Your task to perform on an android device: turn off notifications in google photos Image 0: 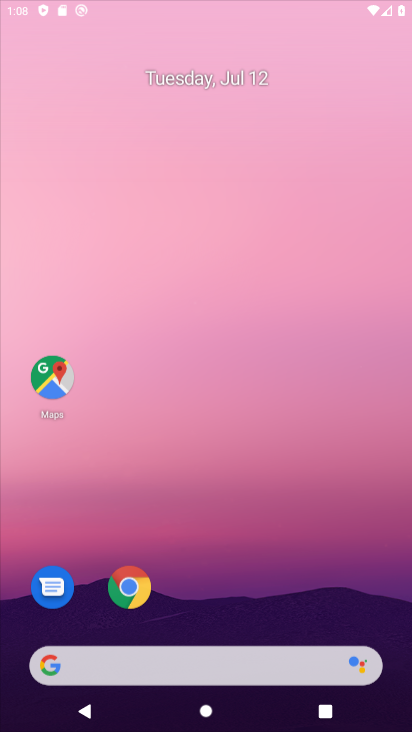
Step 0: click (365, 129)
Your task to perform on an android device: turn off notifications in google photos Image 1: 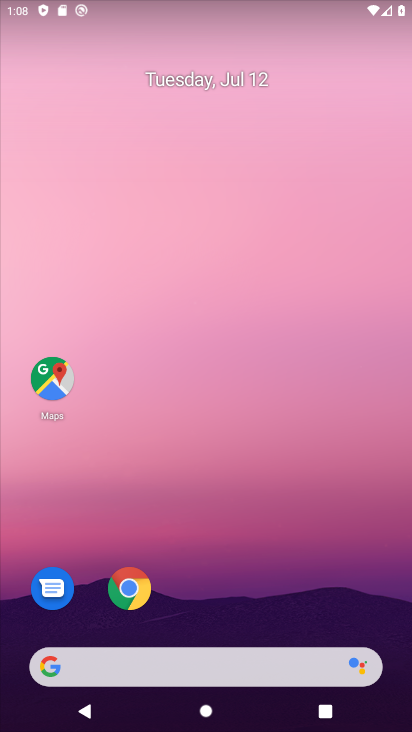
Step 1: drag from (226, 603) to (267, 247)
Your task to perform on an android device: turn off notifications in google photos Image 2: 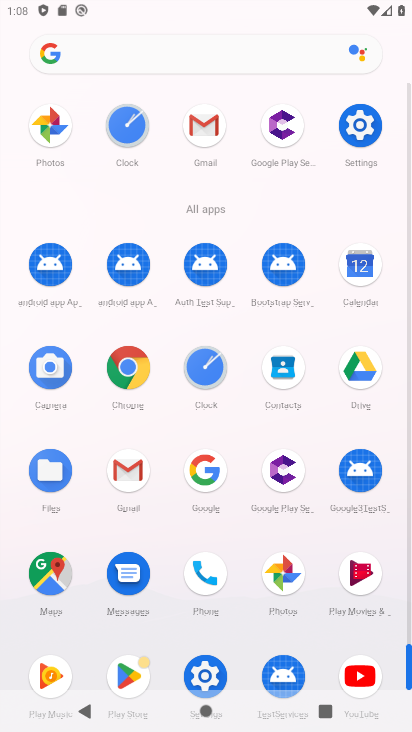
Step 2: click (282, 567)
Your task to perform on an android device: turn off notifications in google photos Image 3: 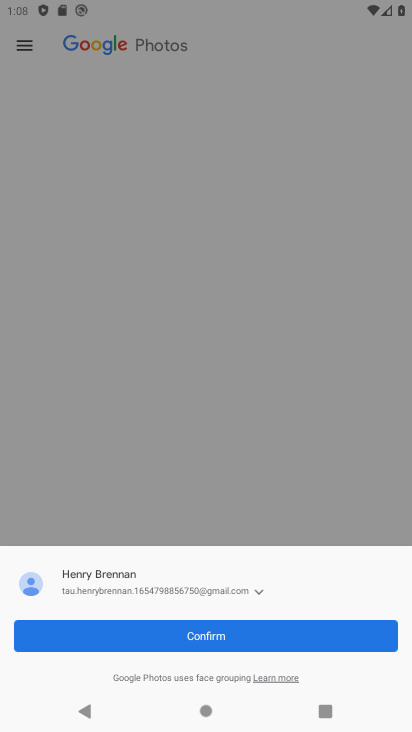
Step 3: click (32, 42)
Your task to perform on an android device: turn off notifications in google photos Image 4: 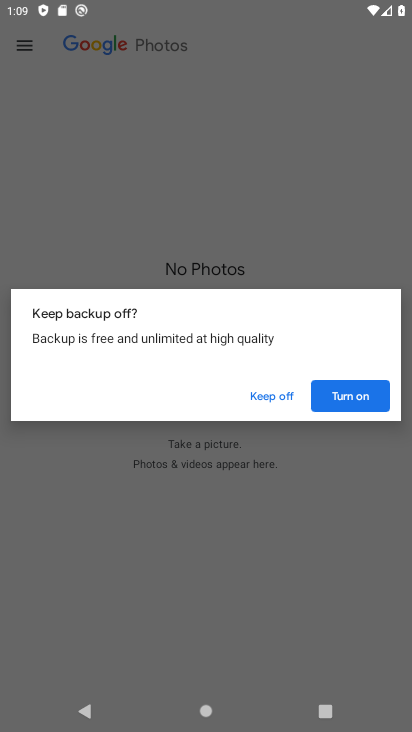
Step 4: click (264, 398)
Your task to perform on an android device: turn off notifications in google photos Image 5: 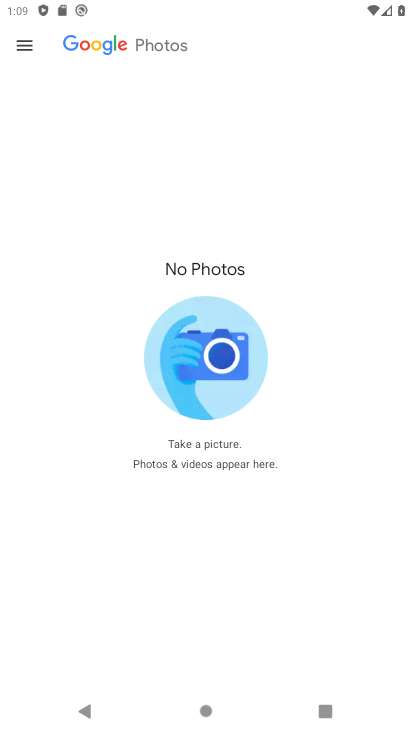
Step 5: click (30, 47)
Your task to perform on an android device: turn off notifications in google photos Image 6: 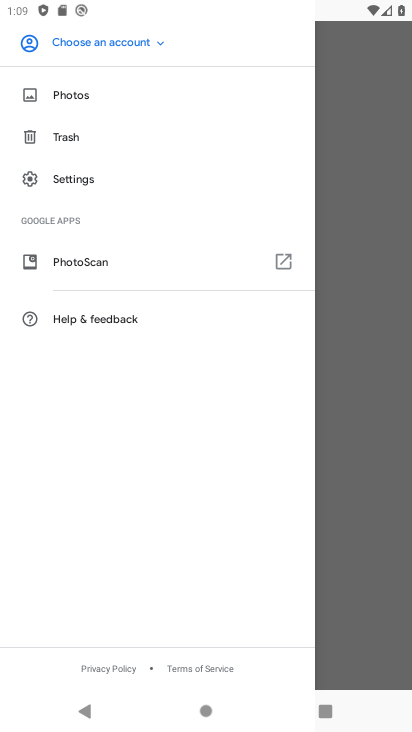
Step 6: click (68, 186)
Your task to perform on an android device: turn off notifications in google photos Image 7: 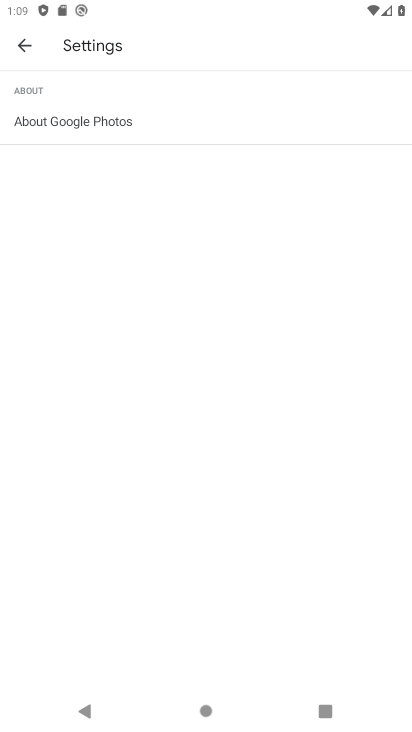
Step 7: click (42, 55)
Your task to perform on an android device: turn off notifications in google photos Image 8: 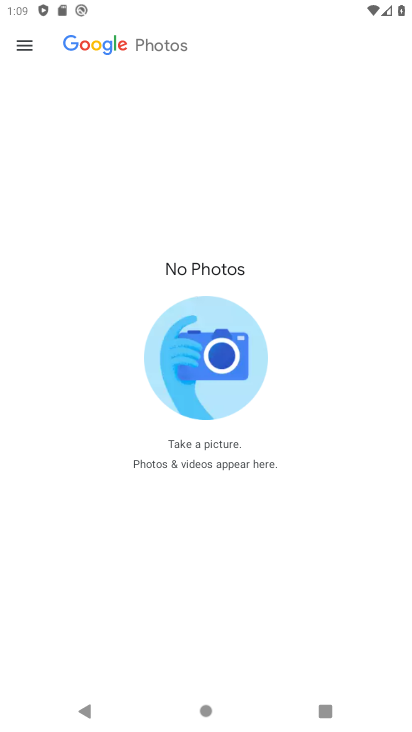
Step 8: click (27, 48)
Your task to perform on an android device: turn off notifications in google photos Image 9: 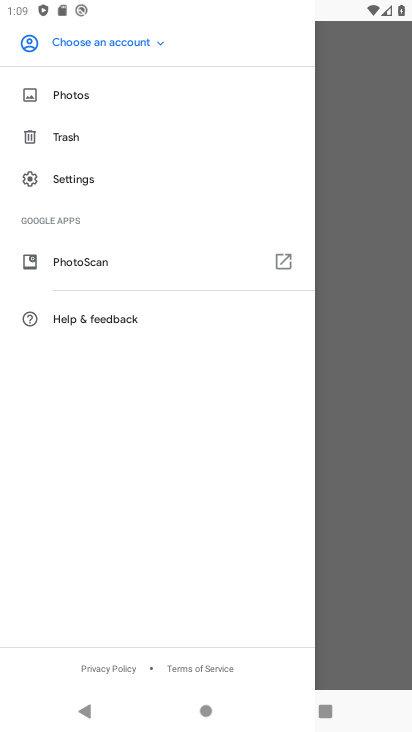
Step 9: click (86, 182)
Your task to perform on an android device: turn off notifications in google photos Image 10: 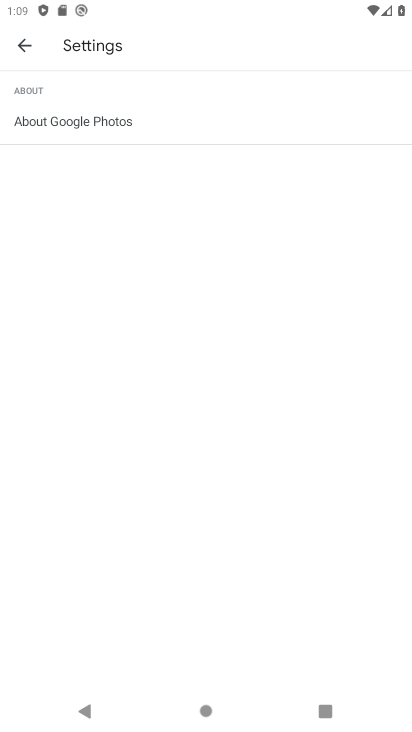
Step 10: click (165, 106)
Your task to perform on an android device: turn off notifications in google photos Image 11: 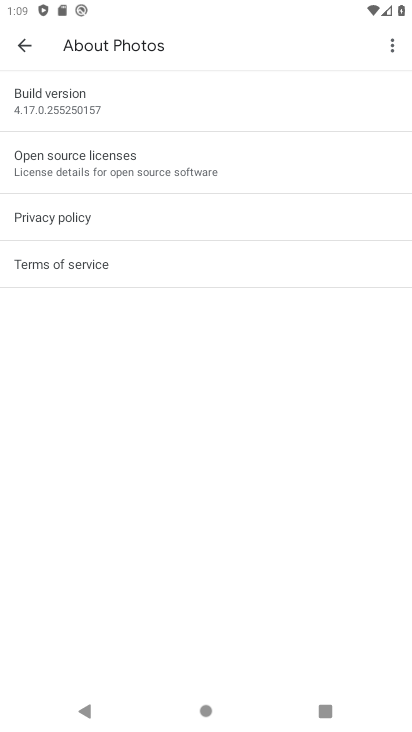
Step 11: click (29, 51)
Your task to perform on an android device: turn off notifications in google photos Image 12: 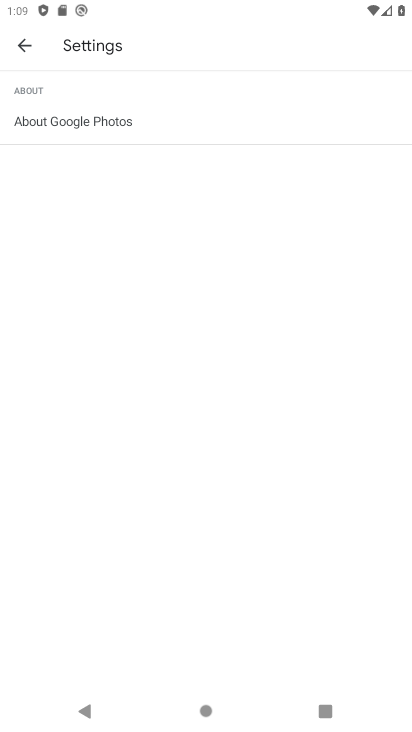
Step 12: click (29, 51)
Your task to perform on an android device: turn off notifications in google photos Image 13: 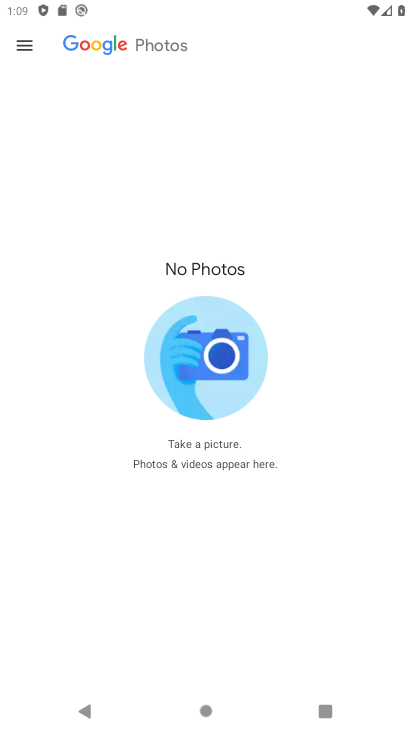
Step 13: drag from (240, 509) to (246, 333)
Your task to perform on an android device: turn off notifications in google photos Image 14: 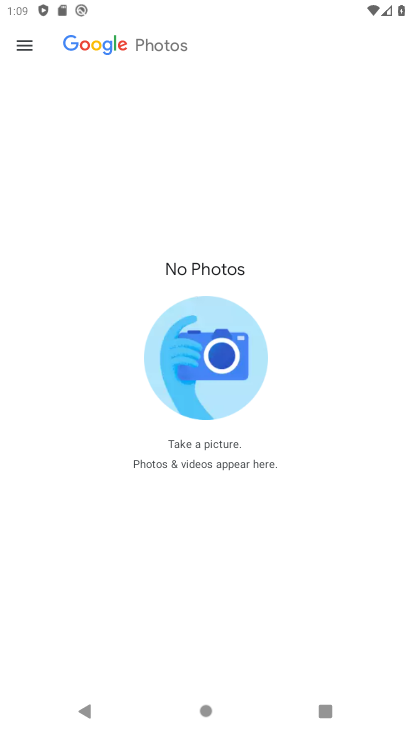
Step 14: press home button
Your task to perform on an android device: turn off notifications in google photos Image 15: 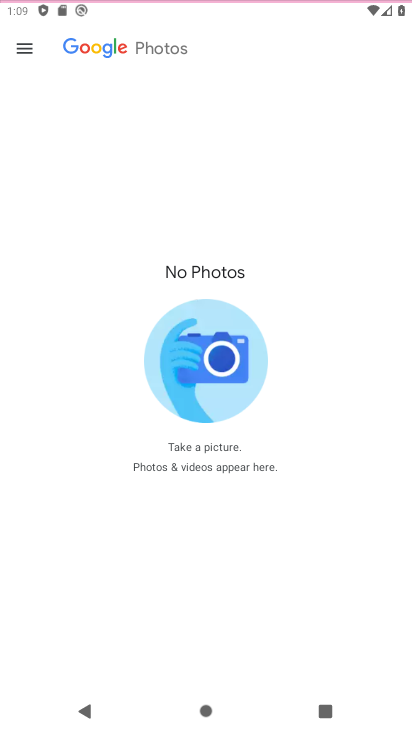
Step 15: drag from (177, 629) to (223, 143)
Your task to perform on an android device: turn off notifications in google photos Image 16: 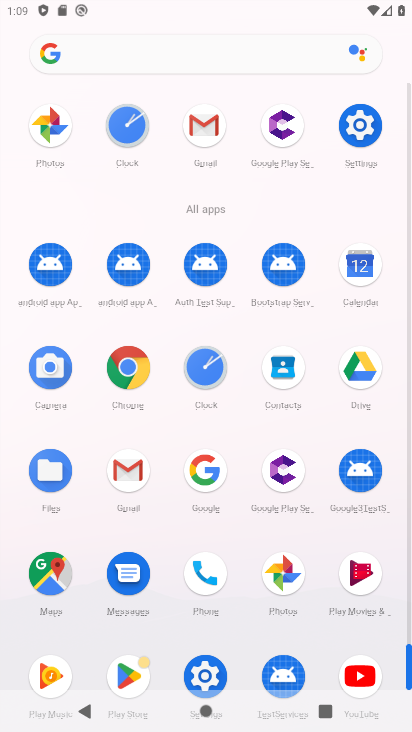
Step 16: click (284, 561)
Your task to perform on an android device: turn off notifications in google photos Image 17: 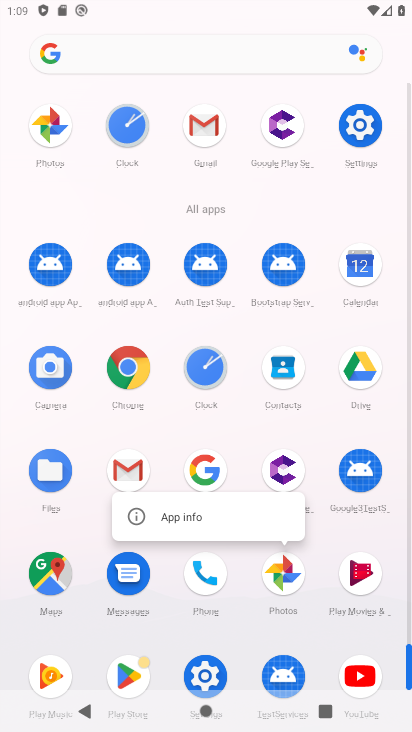
Step 17: click (143, 513)
Your task to perform on an android device: turn off notifications in google photos Image 18: 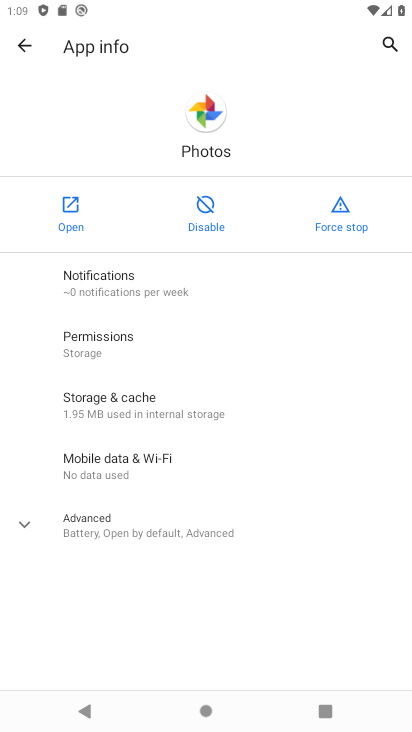
Step 18: click (68, 205)
Your task to perform on an android device: turn off notifications in google photos Image 19: 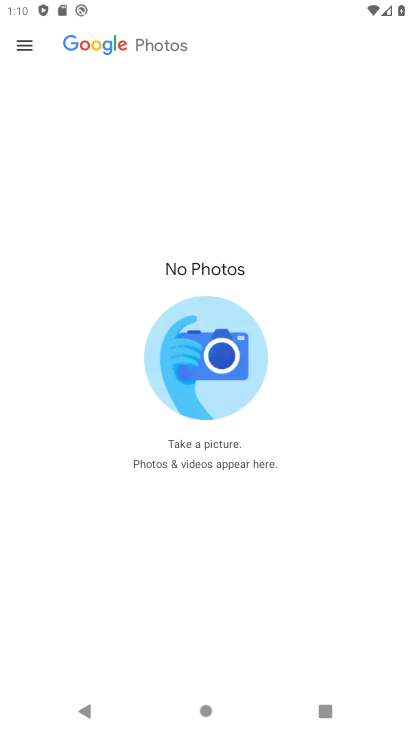
Step 19: drag from (216, 582) to (214, 371)
Your task to perform on an android device: turn off notifications in google photos Image 20: 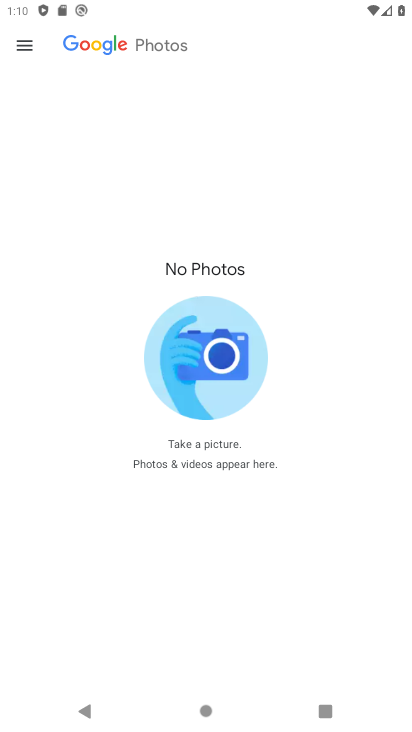
Step 20: click (235, 549)
Your task to perform on an android device: turn off notifications in google photos Image 21: 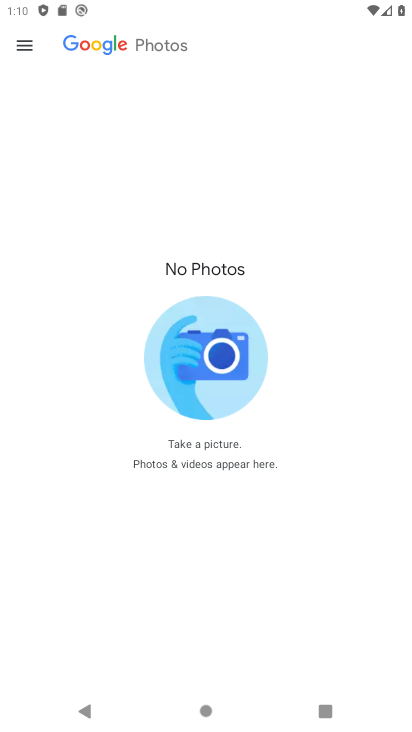
Step 21: click (22, 44)
Your task to perform on an android device: turn off notifications in google photos Image 22: 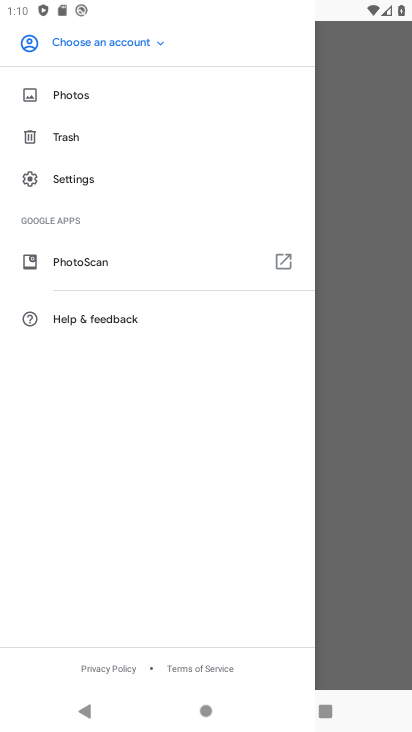
Step 22: task complete